Your task to perform on an android device: Go to sound settings Image 0: 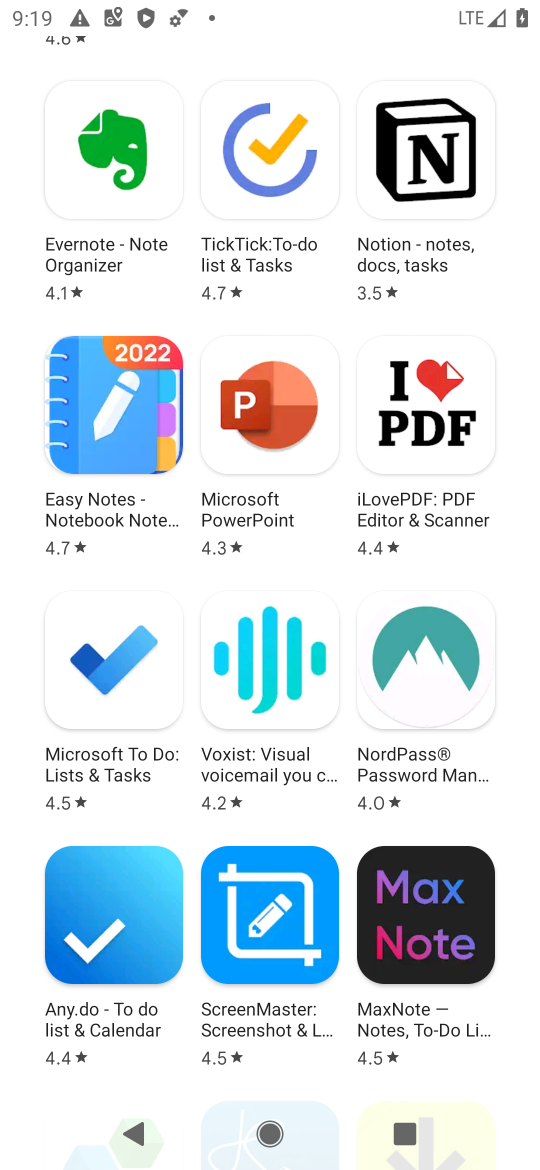
Step 0: press home button
Your task to perform on an android device: Go to sound settings Image 1: 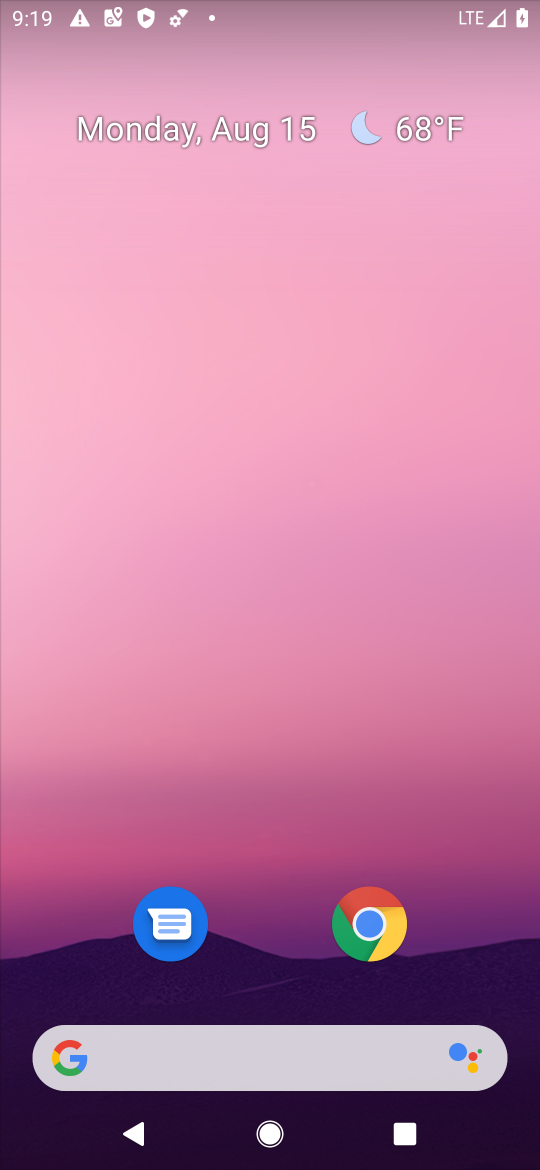
Step 1: drag from (500, 980) to (429, 129)
Your task to perform on an android device: Go to sound settings Image 2: 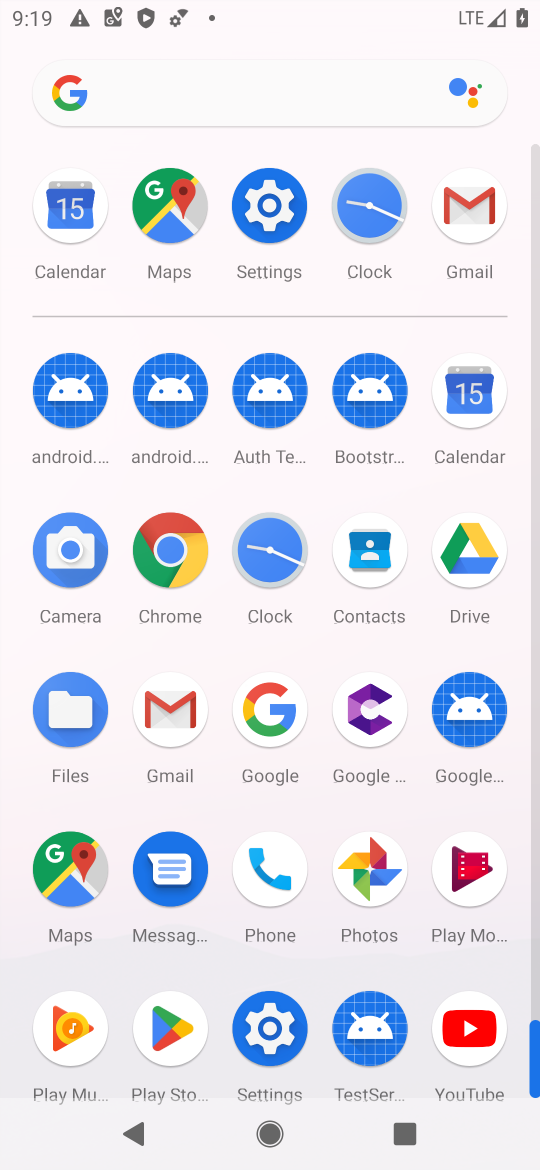
Step 2: click (271, 1030)
Your task to perform on an android device: Go to sound settings Image 3: 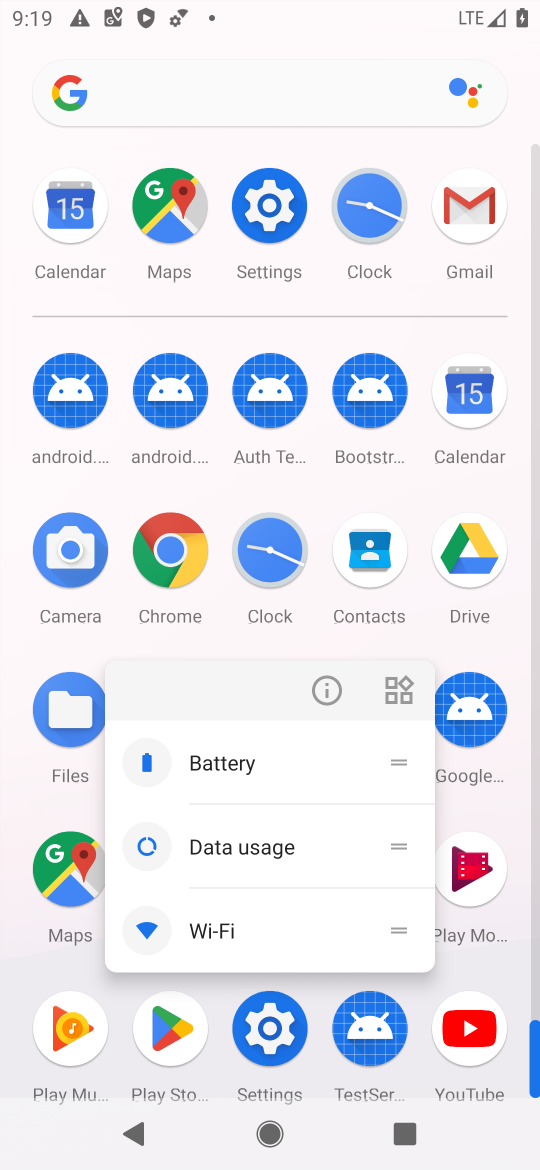
Step 3: click (271, 1030)
Your task to perform on an android device: Go to sound settings Image 4: 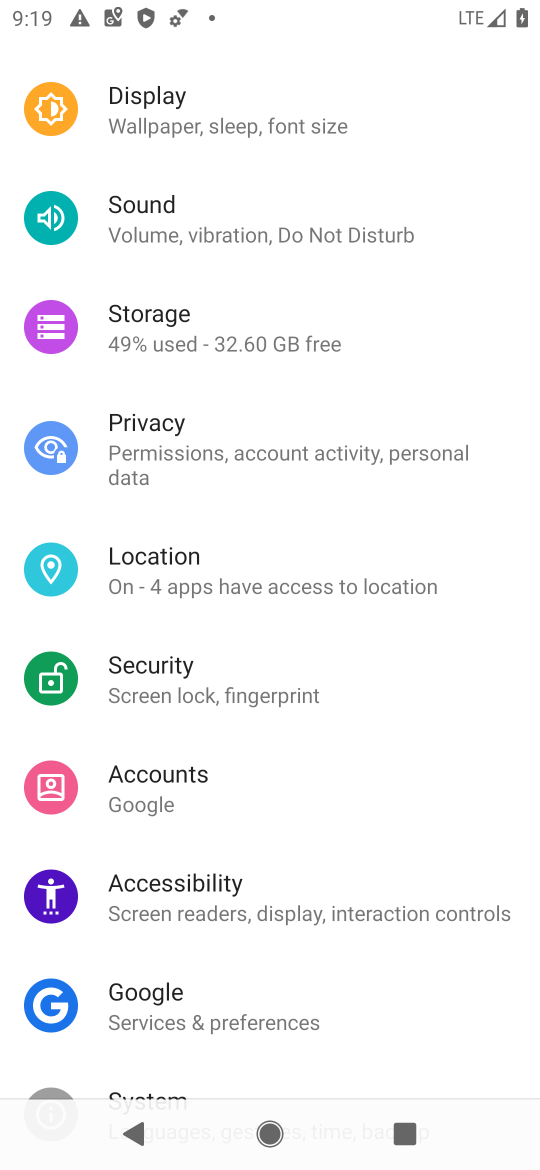
Step 4: click (154, 209)
Your task to perform on an android device: Go to sound settings Image 5: 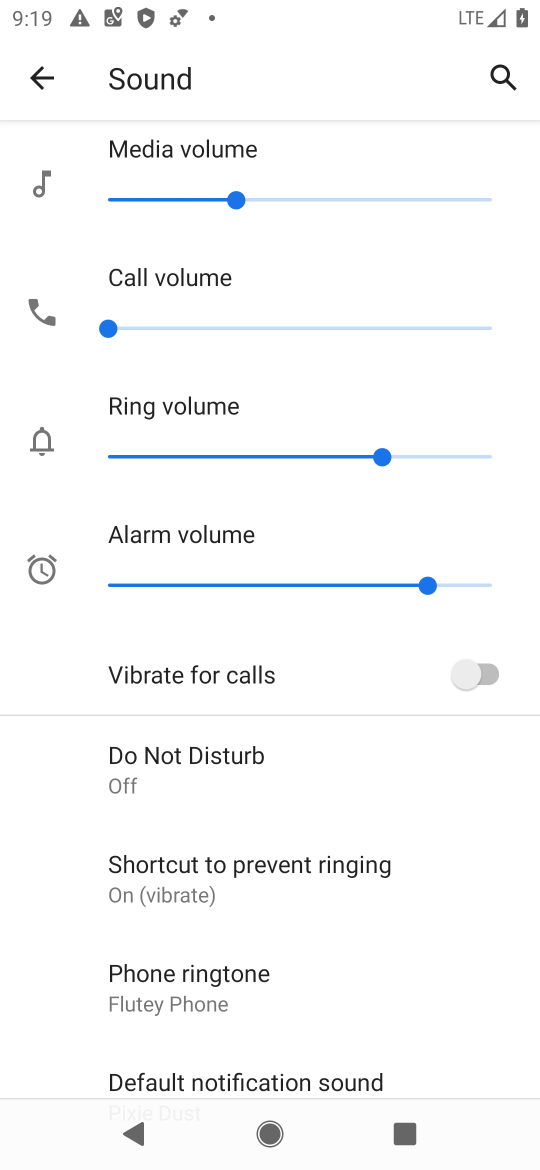
Step 5: drag from (415, 903) to (393, 353)
Your task to perform on an android device: Go to sound settings Image 6: 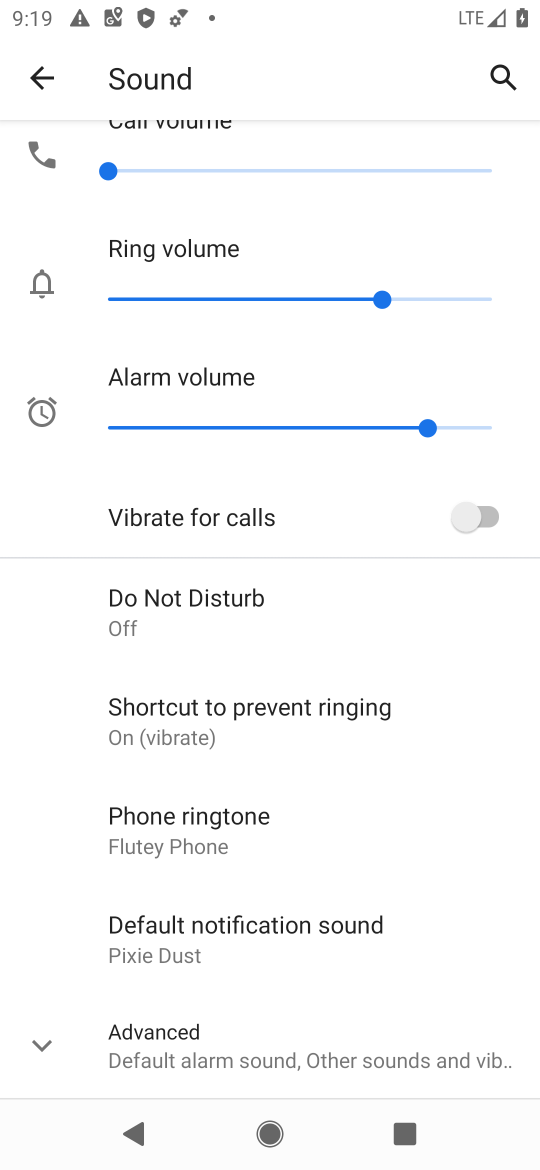
Step 6: click (37, 1044)
Your task to perform on an android device: Go to sound settings Image 7: 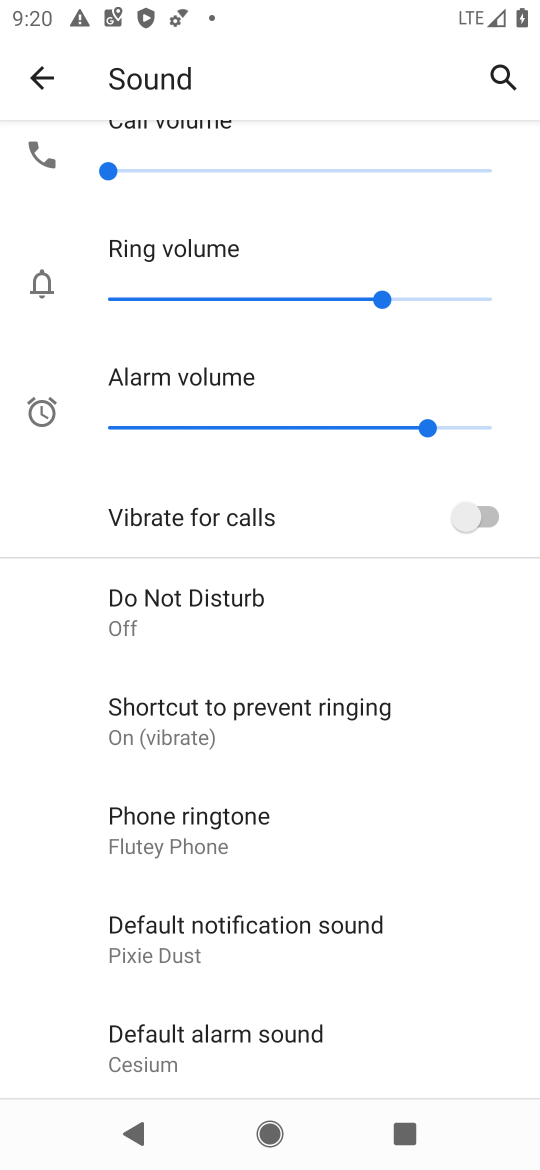
Step 7: task complete